Your task to perform on an android device: What is the news today? Image 0: 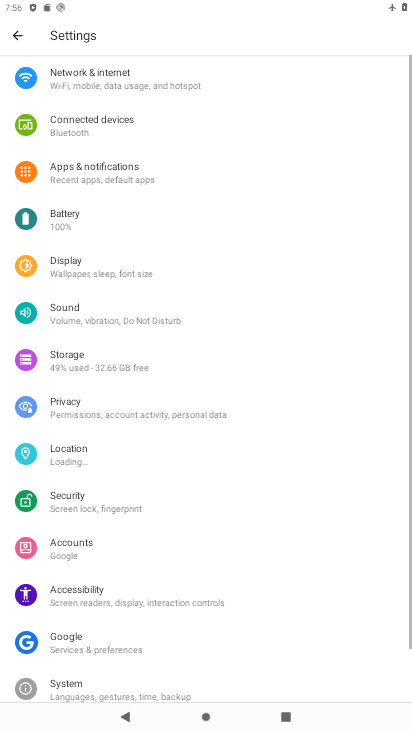
Step 0: press home button
Your task to perform on an android device: What is the news today? Image 1: 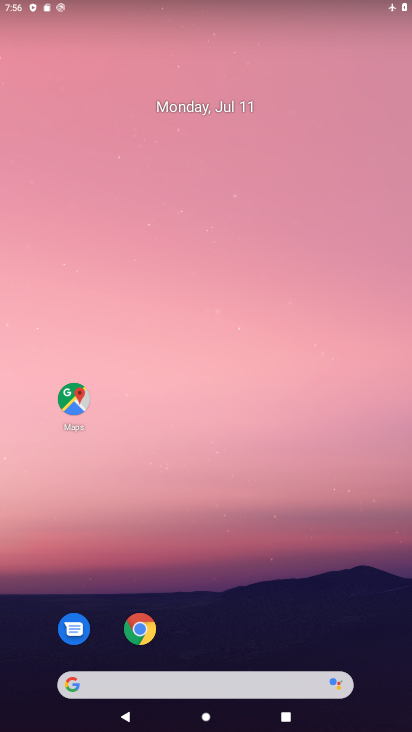
Step 1: task complete